Your task to perform on an android device: turn off notifications in google photos Image 0: 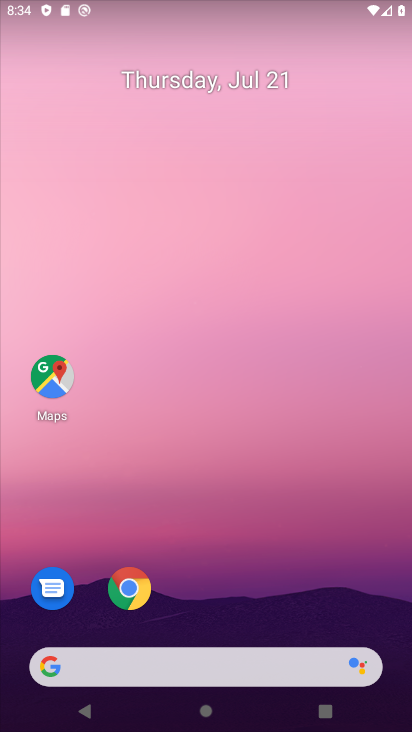
Step 0: click (209, 213)
Your task to perform on an android device: turn off notifications in google photos Image 1: 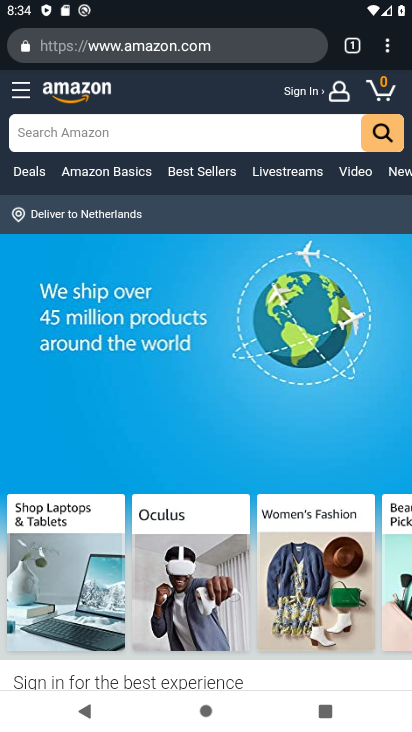
Step 1: drag from (235, 471) to (225, 175)
Your task to perform on an android device: turn off notifications in google photos Image 2: 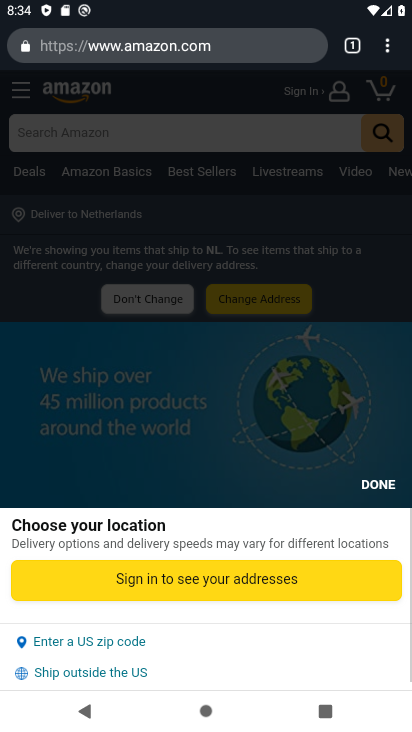
Step 2: press back button
Your task to perform on an android device: turn off notifications in google photos Image 3: 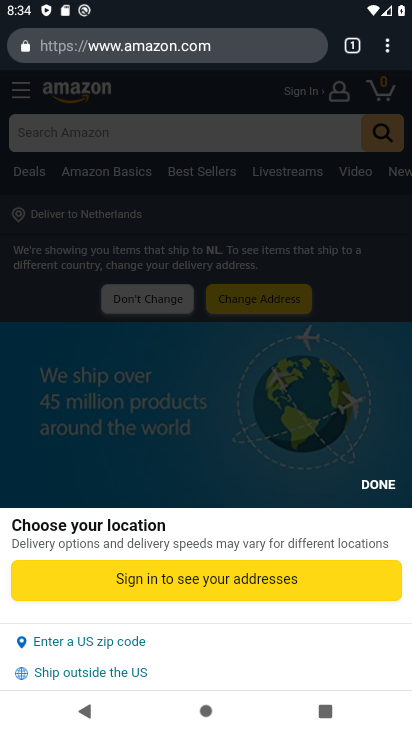
Step 3: press back button
Your task to perform on an android device: turn off notifications in google photos Image 4: 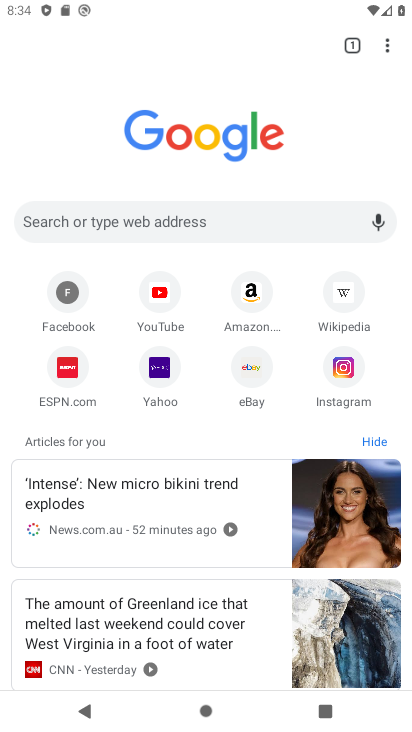
Step 4: press home button
Your task to perform on an android device: turn off notifications in google photos Image 5: 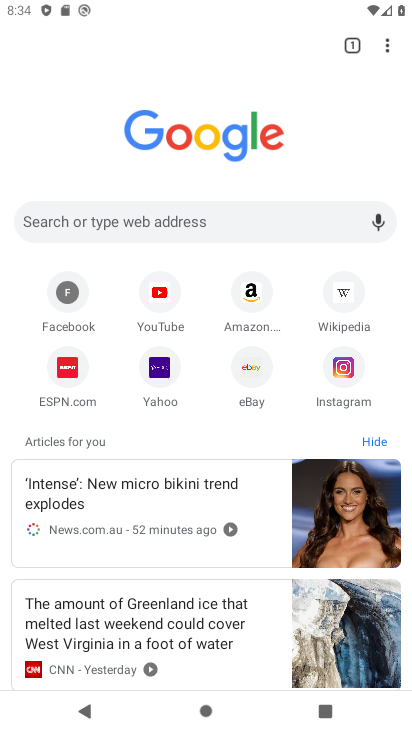
Step 5: press home button
Your task to perform on an android device: turn off notifications in google photos Image 6: 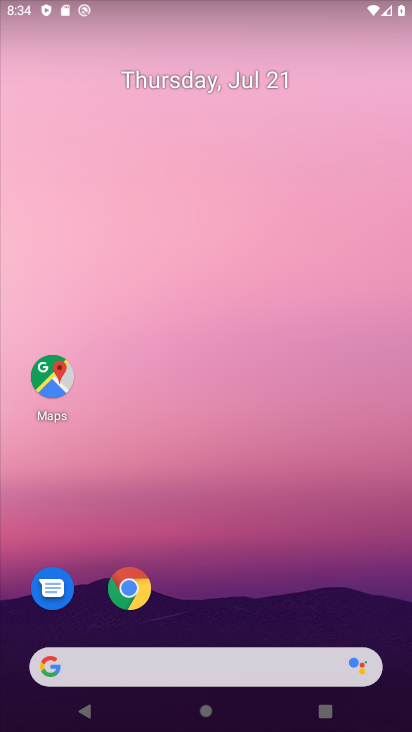
Step 6: drag from (239, 650) to (188, 260)
Your task to perform on an android device: turn off notifications in google photos Image 7: 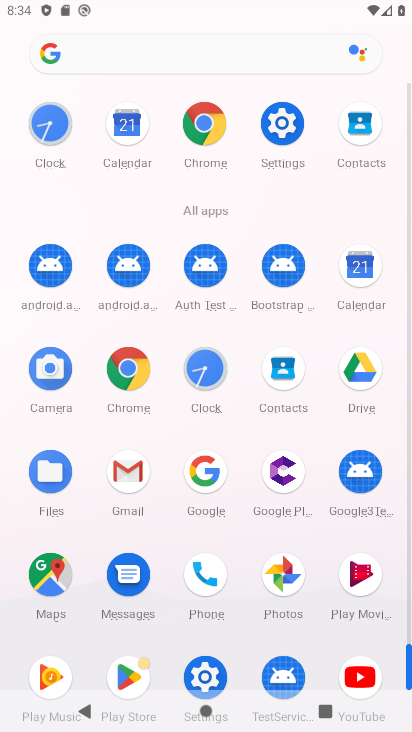
Step 7: click (272, 569)
Your task to perform on an android device: turn off notifications in google photos Image 8: 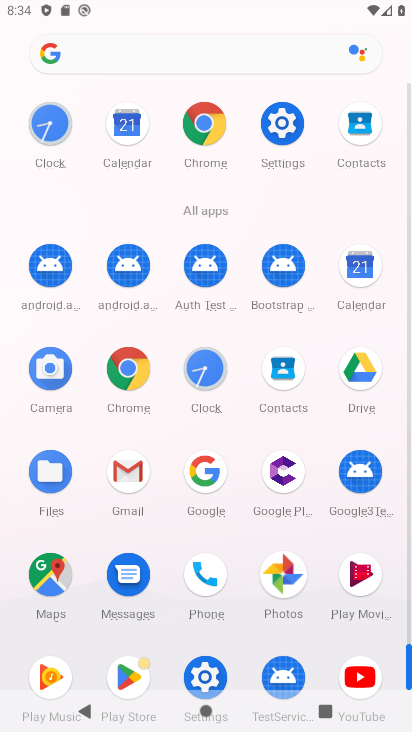
Step 8: click (281, 567)
Your task to perform on an android device: turn off notifications in google photos Image 9: 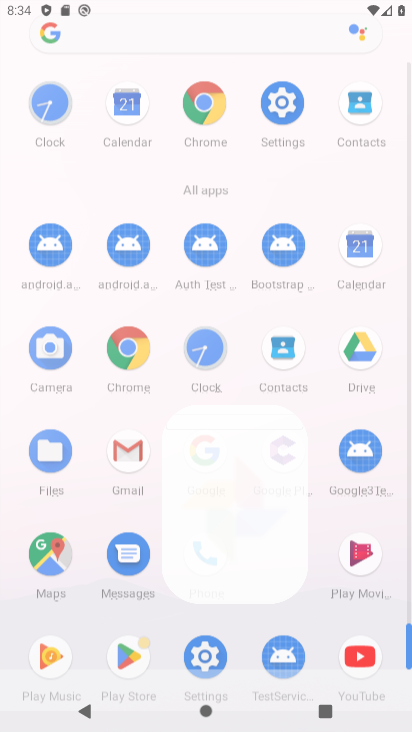
Step 9: click (281, 567)
Your task to perform on an android device: turn off notifications in google photos Image 10: 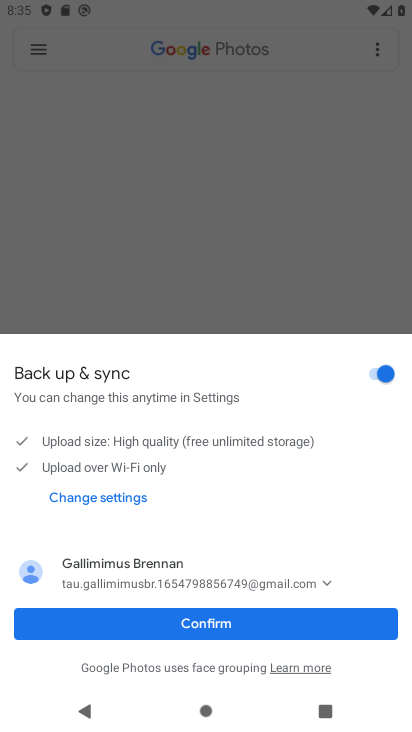
Step 10: click (223, 621)
Your task to perform on an android device: turn off notifications in google photos Image 11: 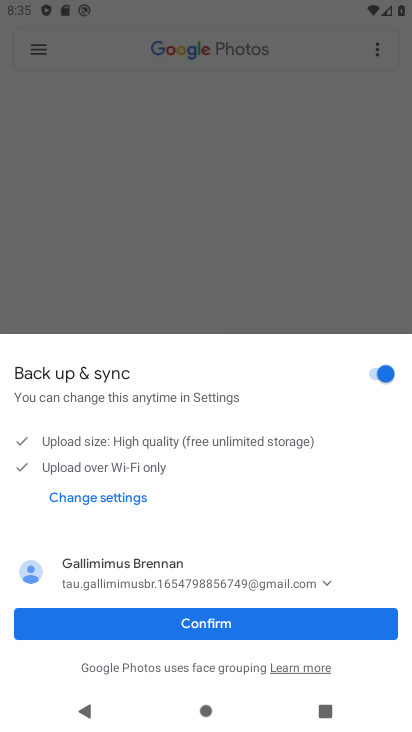
Step 11: click (224, 621)
Your task to perform on an android device: turn off notifications in google photos Image 12: 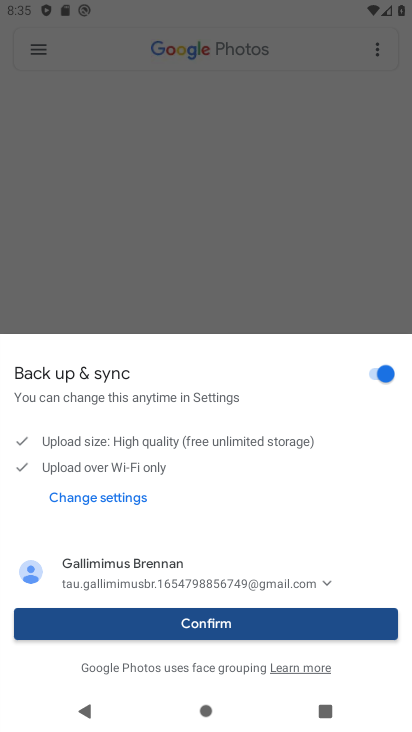
Step 12: click (224, 621)
Your task to perform on an android device: turn off notifications in google photos Image 13: 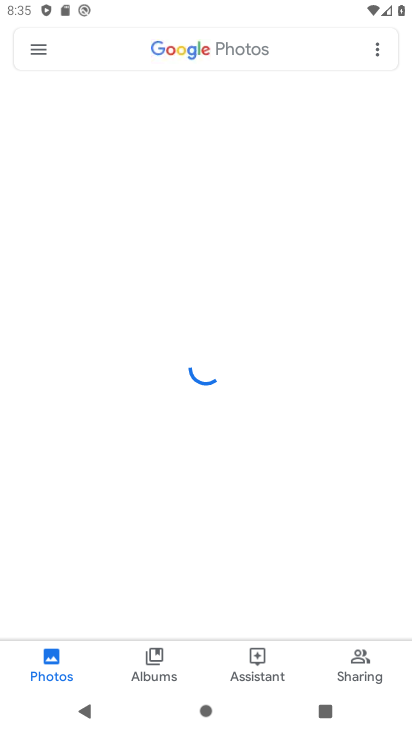
Step 13: click (224, 621)
Your task to perform on an android device: turn off notifications in google photos Image 14: 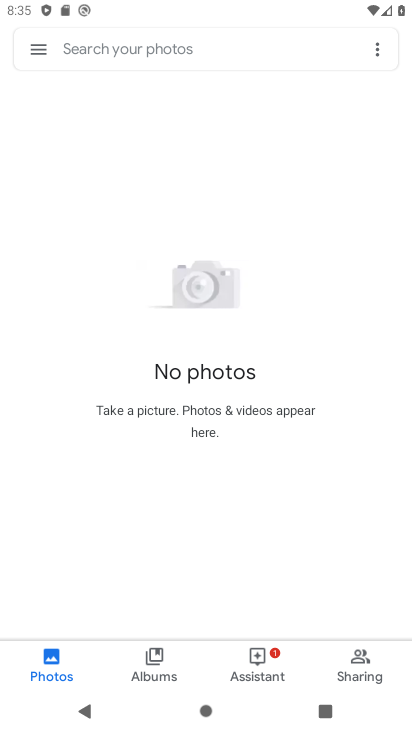
Step 14: drag from (33, 49) to (80, 415)
Your task to perform on an android device: turn off notifications in google photos Image 15: 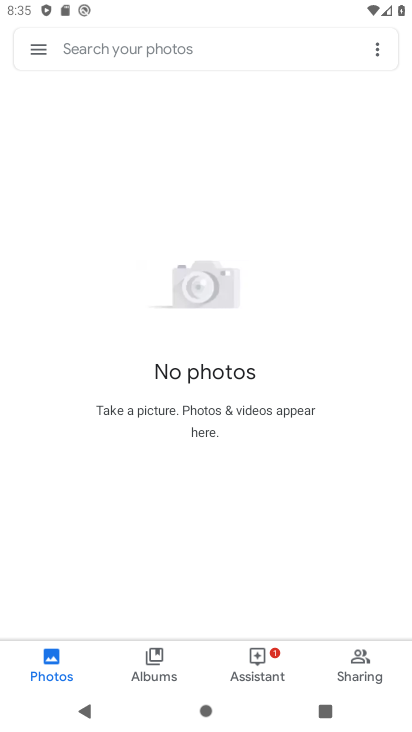
Step 15: drag from (35, 47) to (84, 268)
Your task to perform on an android device: turn off notifications in google photos Image 16: 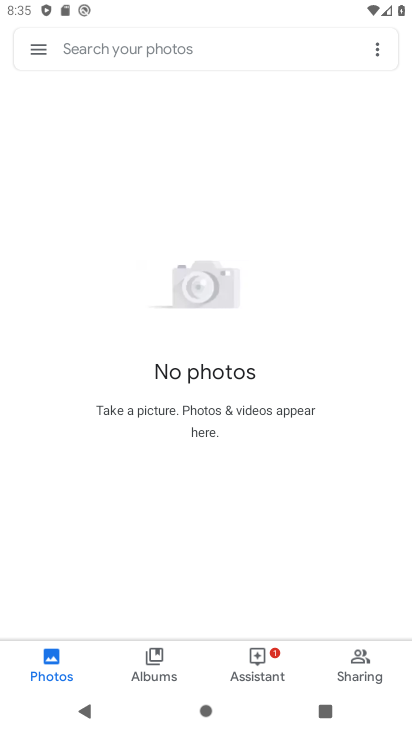
Step 16: drag from (47, 63) to (86, 297)
Your task to perform on an android device: turn off notifications in google photos Image 17: 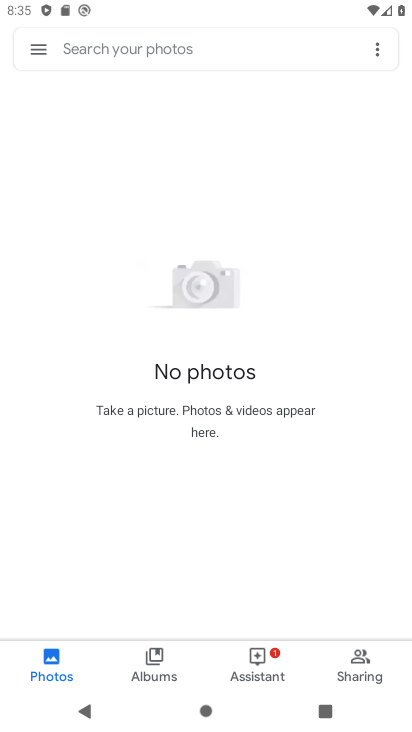
Step 17: click (40, 51)
Your task to perform on an android device: turn off notifications in google photos Image 18: 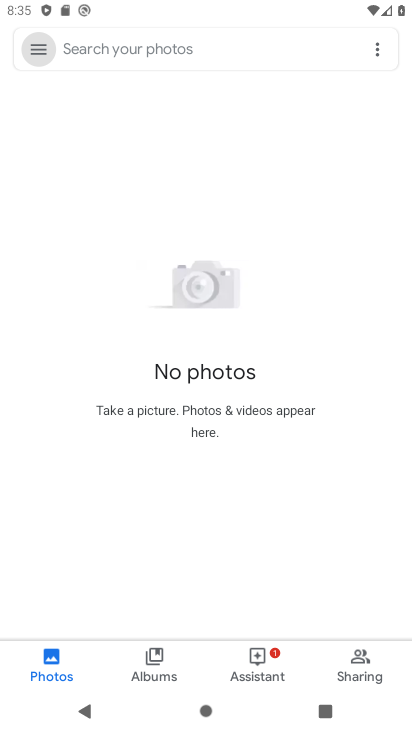
Step 18: click (41, 50)
Your task to perform on an android device: turn off notifications in google photos Image 19: 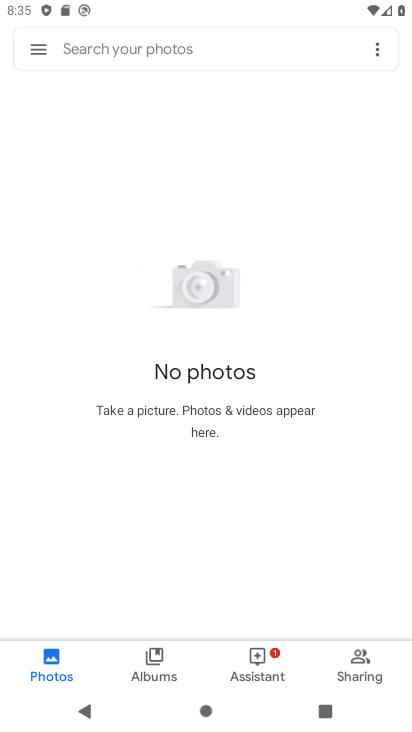
Step 19: click (43, 52)
Your task to perform on an android device: turn off notifications in google photos Image 20: 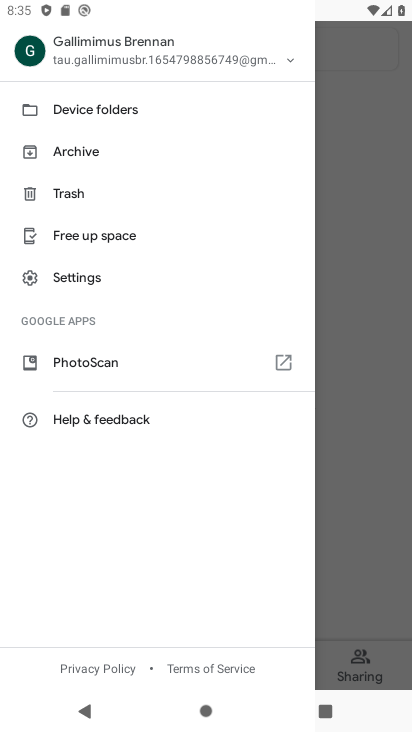
Step 20: click (62, 274)
Your task to perform on an android device: turn off notifications in google photos Image 21: 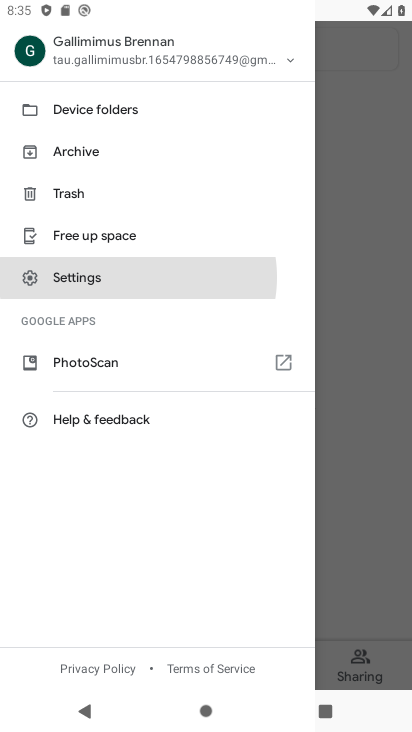
Step 21: click (62, 274)
Your task to perform on an android device: turn off notifications in google photos Image 22: 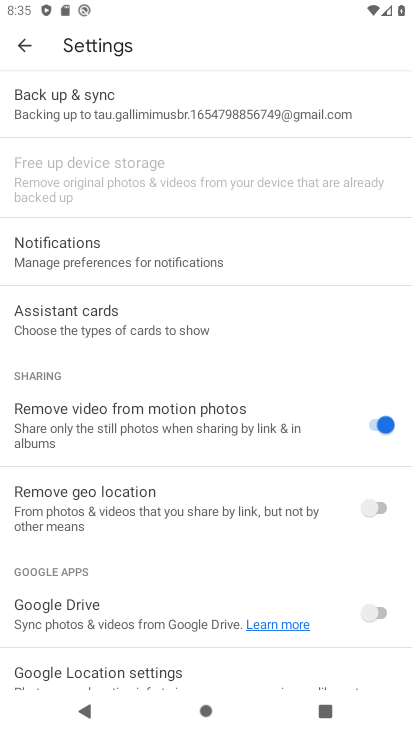
Step 22: click (80, 251)
Your task to perform on an android device: turn off notifications in google photos Image 23: 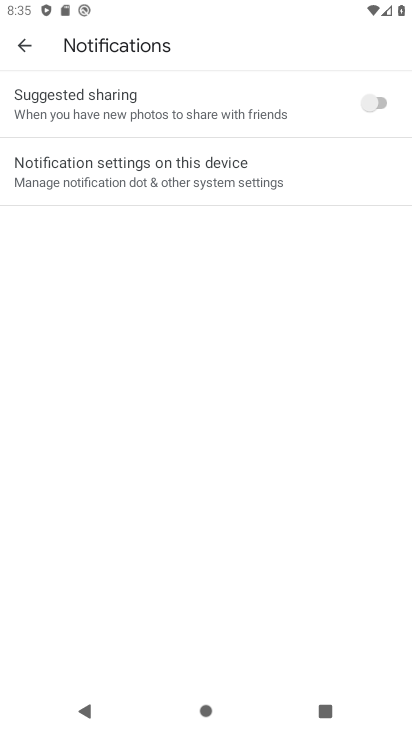
Step 23: task complete